Your task to perform on an android device: open device folders in google photos Image 0: 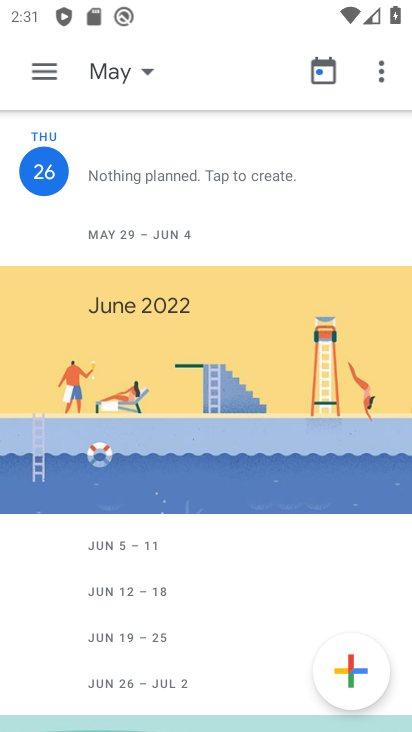
Step 0: press home button
Your task to perform on an android device: open device folders in google photos Image 1: 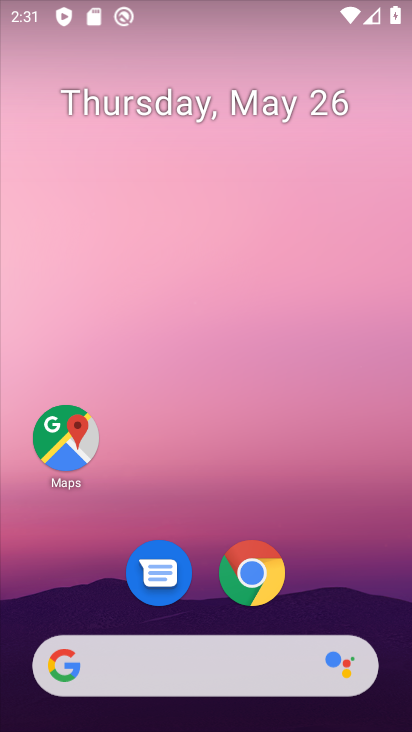
Step 1: drag from (183, 653) to (202, 29)
Your task to perform on an android device: open device folders in google photos Image 2: 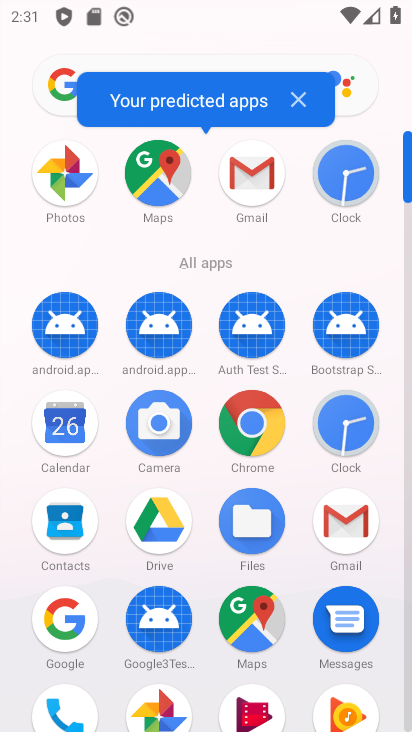
Step 2: click (148, 712)
Your task to perform on an android device: open device folders in google photos Image 3: 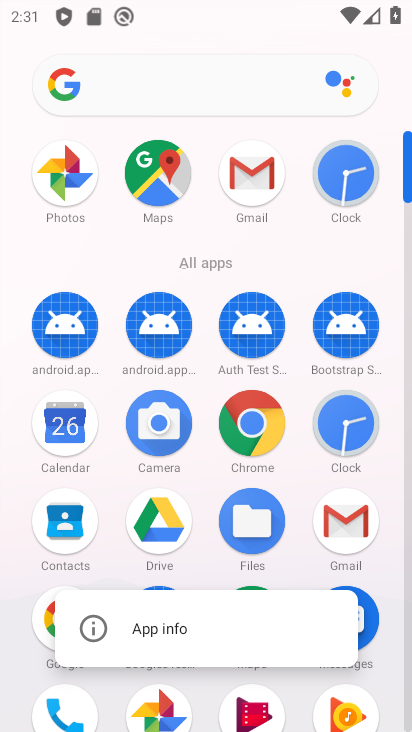
Step 3: click (155, 688)
Your task to perform on an android device: open device folders in google photos Image 4: 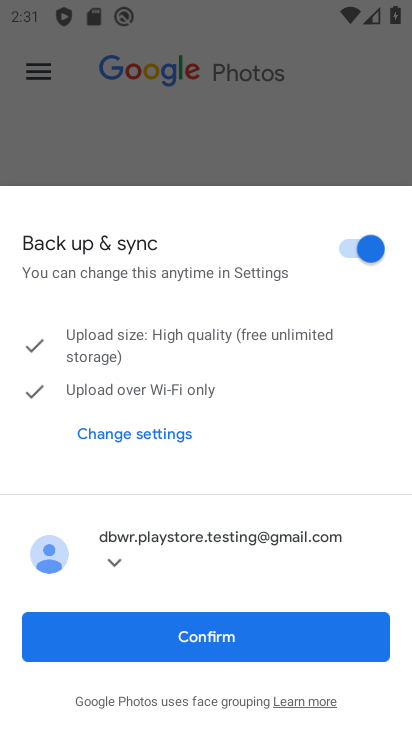
Step 4: click (168, 648)
Your task to perform on an android device: open device folders in google photos Image 5: 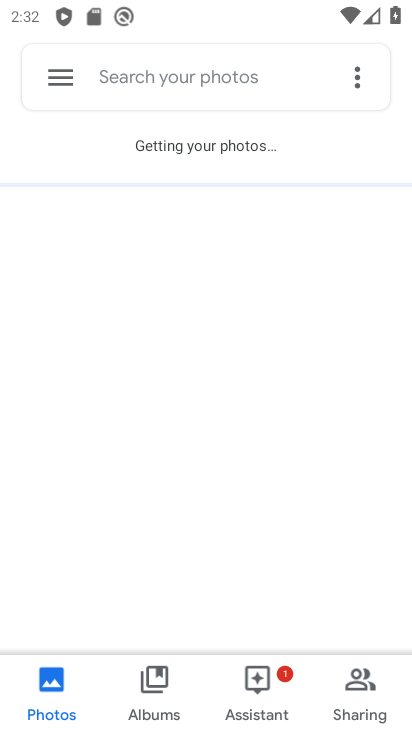
Step 5: press home button
Your task to perform on an android device: open device folders in google photos Image 6: 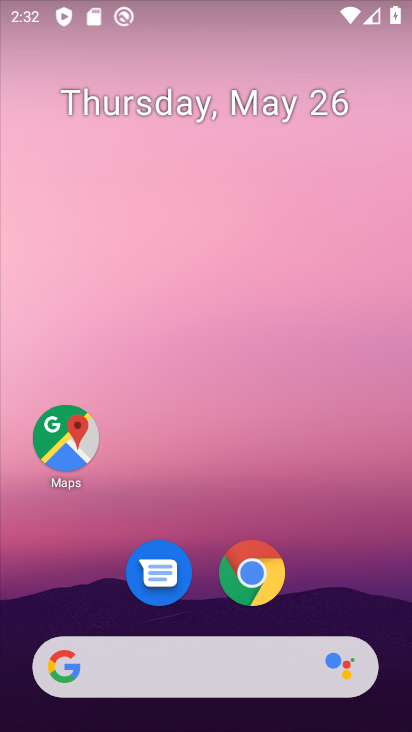
Step 6: drag from (173, 633) to (227, 259)
Your task to perform on an android device: open device folders in google photos Image 7: 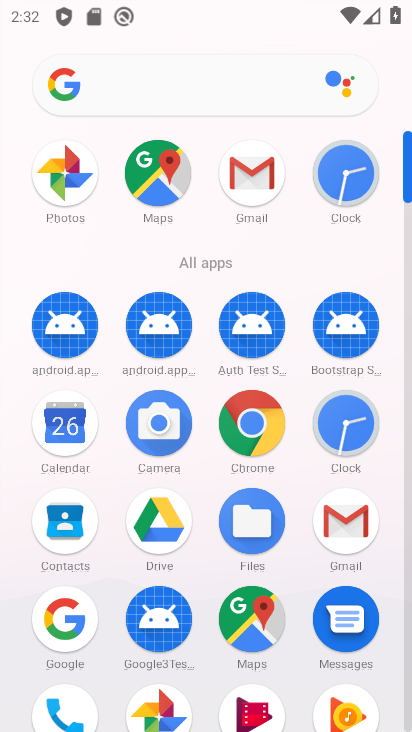
Step 7: drag from (210, 659) to (305, 97)
Your task to perform on an android device: open device folders in google photos Image 8: 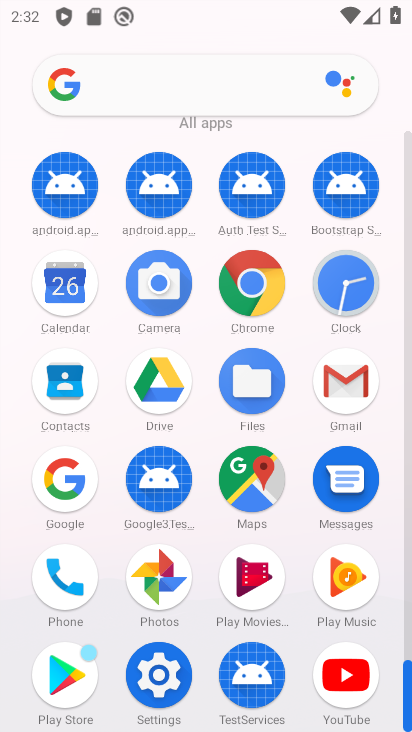
Step 8: click (166, 573)
Your task to perform on an android device: open device folders in google photos Image 9: 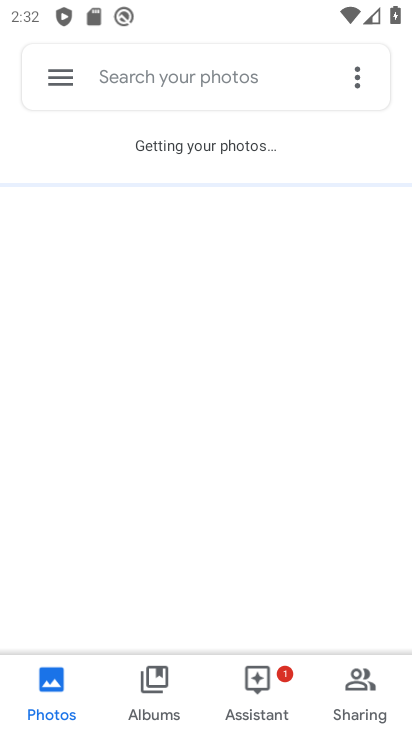
Step 9: click (154, 688)
Your task to perform on an android device: open device folders in google photos Image 10: 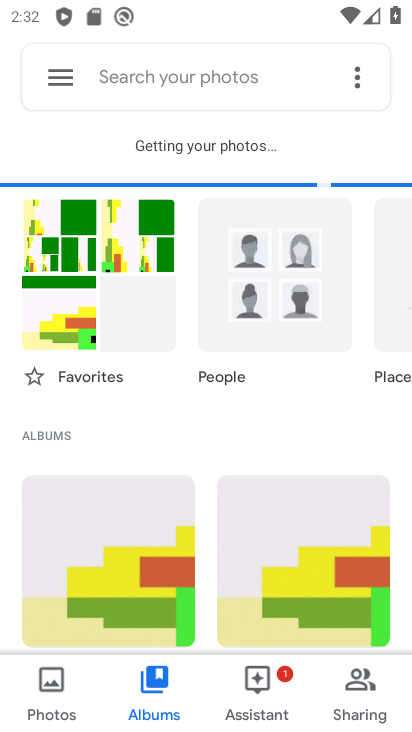
Step 10: task complete